Your task to perform on an android device: Go to internet settings Image 0: 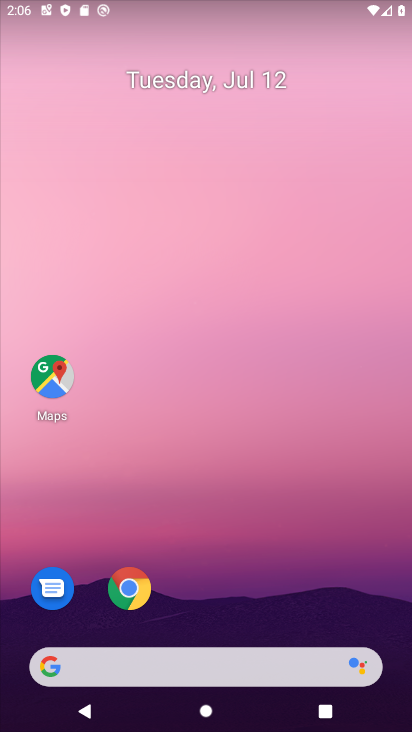
Step 0: drag from (196, 672) to (118, 101)
Your task to perform on an android device: Go to internet settings Image 1: 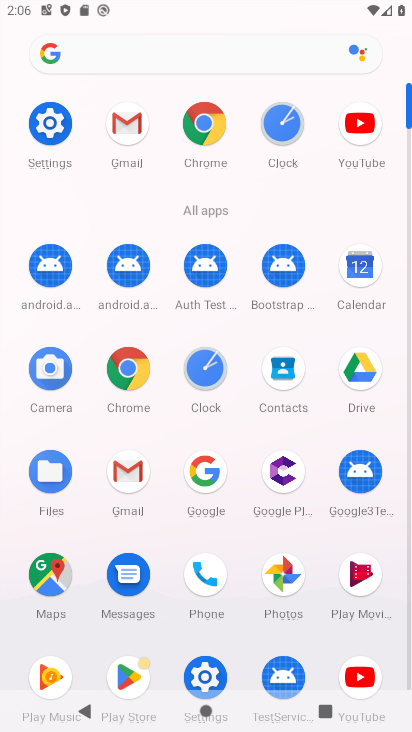
Step 1: click (62, 133)
Your task to perform on an android device: Go to internet settings Image 2: 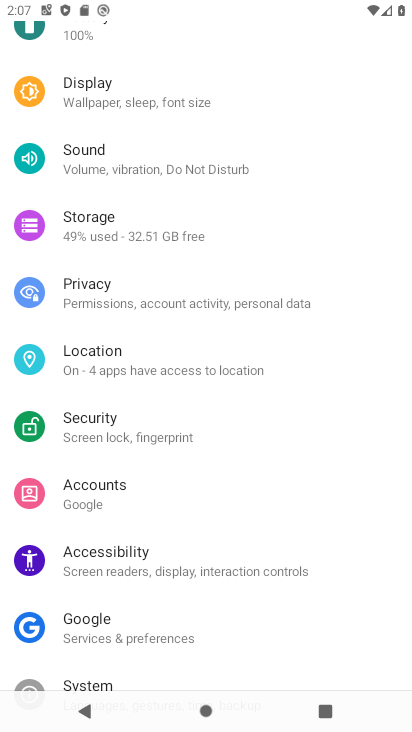
Step 2: drag from (154, 87) to (160, 631)
Your task to perform on an android device: Go to internet settings Image 3: 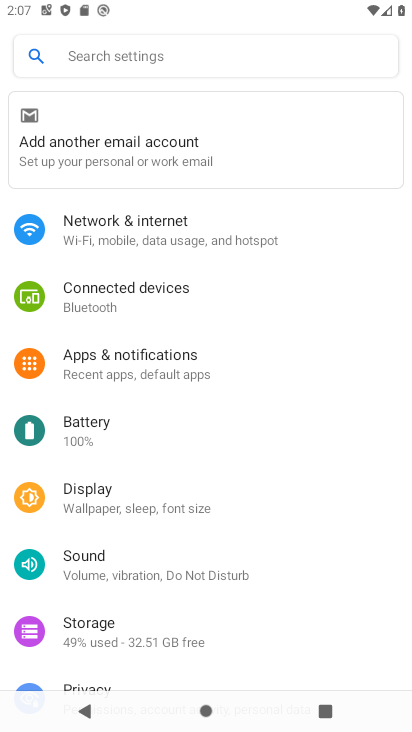
Step 3: click (155, 227)
Your task to perform on an android device: Go to internet settings Image 4: 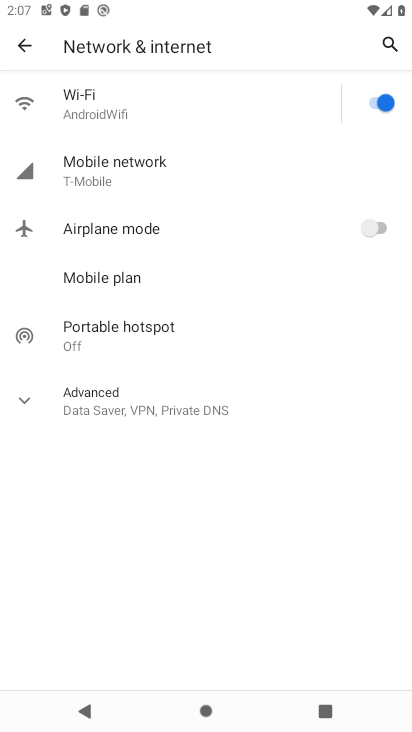
Step 4: task complete